Your task to perform on an android device: Go to display settings Image 0: 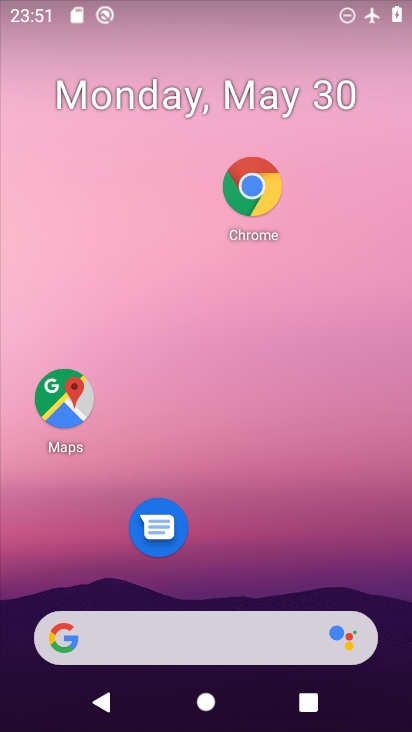
Step 0: drag from (256, 593) to (238, 275)
Your task to perform on an android device: Go to display settings Image 1: 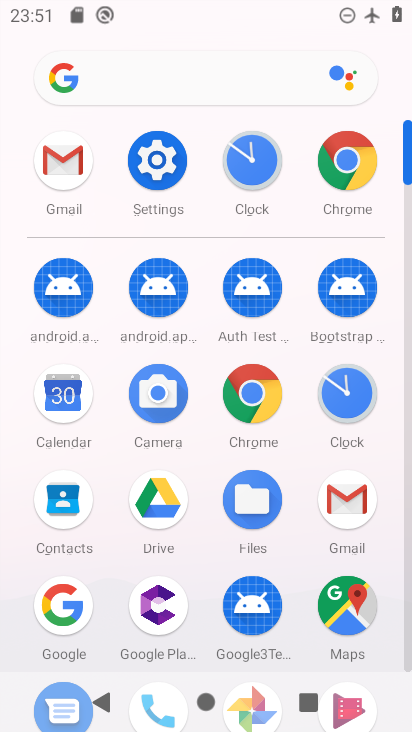
Step 1: drag from (193, 557) to (231, 467)
Your task to perform on an android device: Go to display settings Image 2: 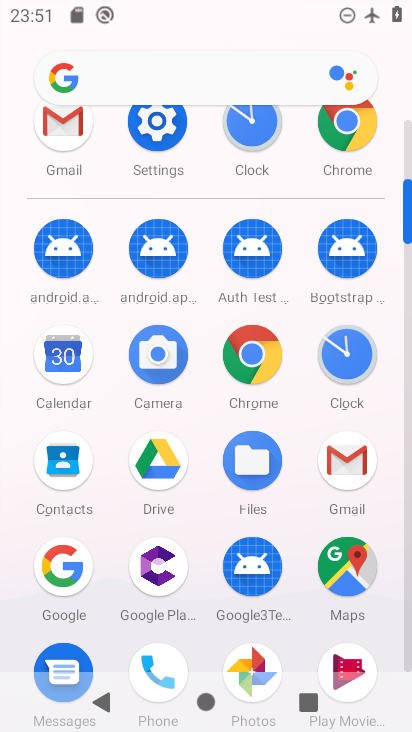
Step 2: click (152, 124)
Your task to perform on an android device: Go to display settings Image 3: 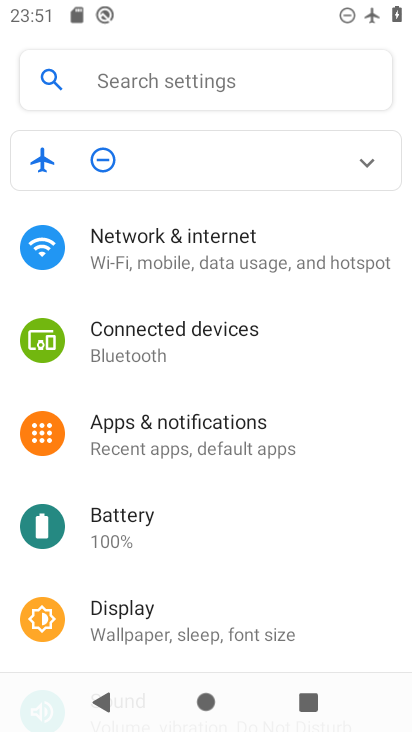
Step 3: drag from (230, 569) to (263, 402)
Your task to perform on an android device: Go to display settings Image 4: 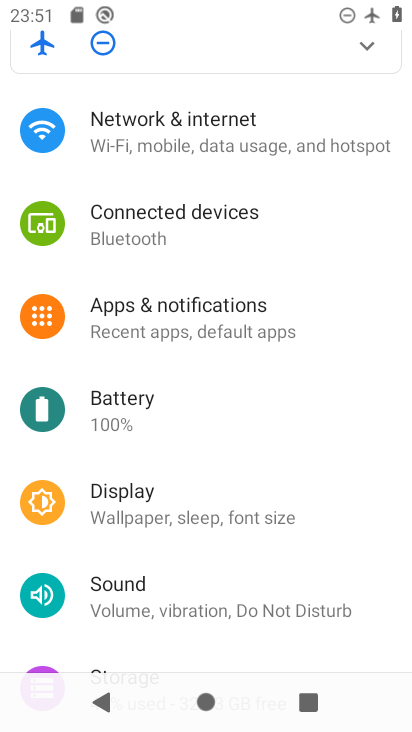
Step 4: click (209, 519)
Your task to perform on an android device: Go to display settings Image 5: 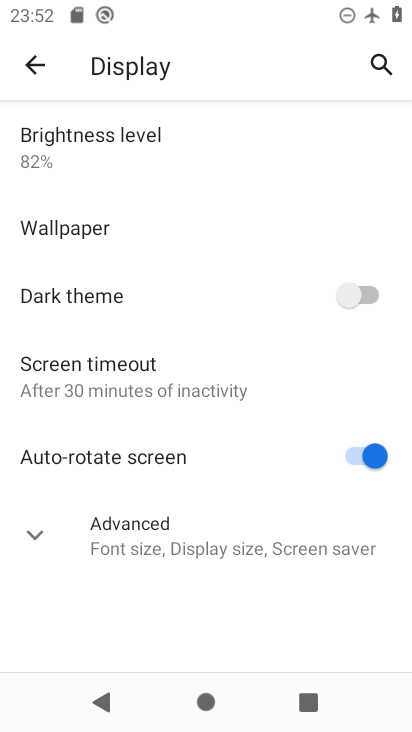
Step 5: task complete